Your task to perform on an android device: delete a single message in the gmail app Image 0: 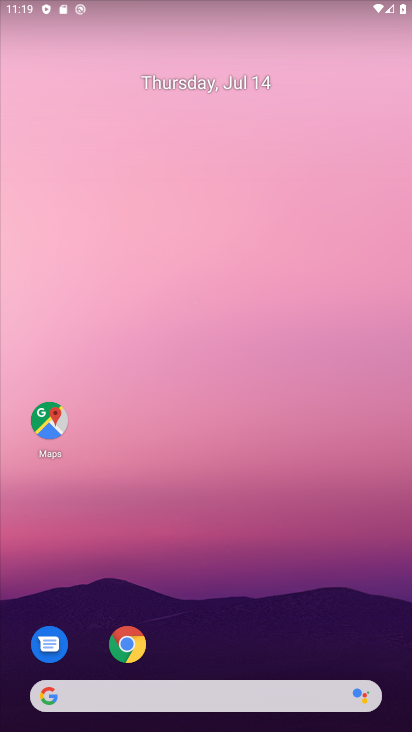
Step 0: drag from (389, 646) to (252, 50)
Your task to perform on an android device: delete a single message in the gmail app Image 1: 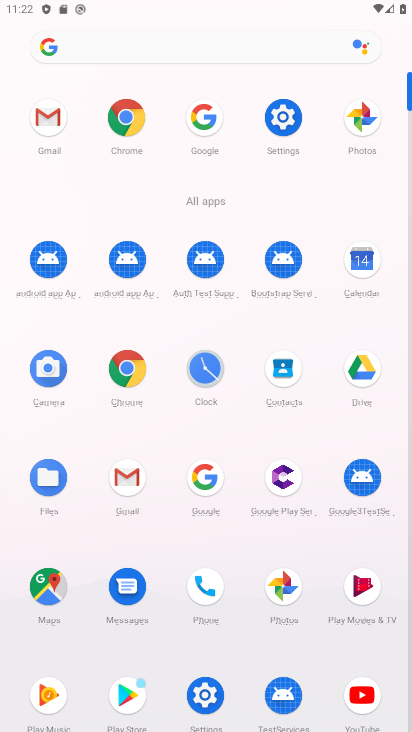
Step 1: click (124, 483)
Your task to perform on an android device: delete a single message in the gmail app Image 2: 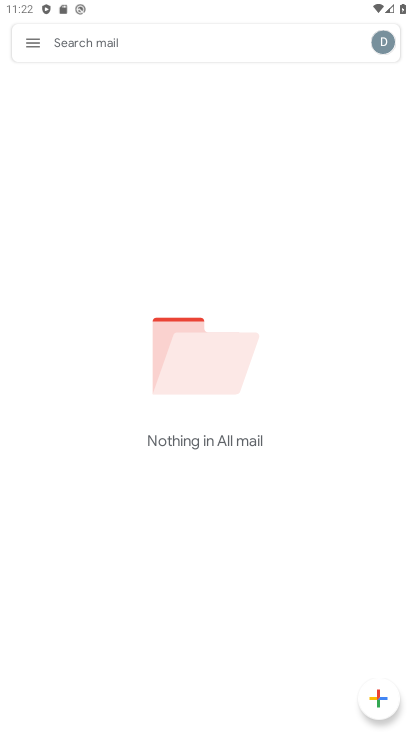
Step 2: task complete